Your task to perform on an android device: open sync settings in chrome Image 0: 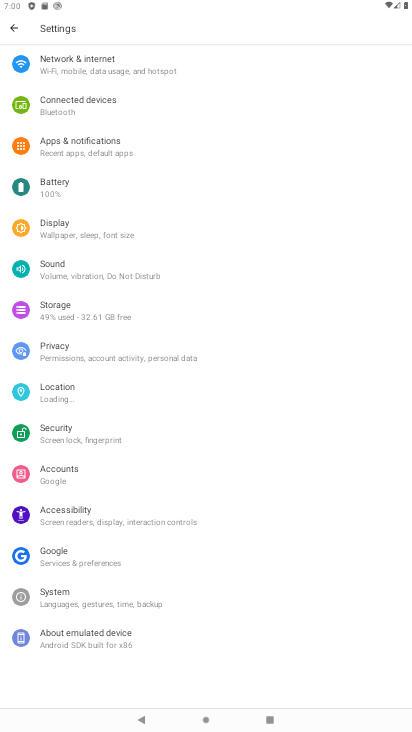
Step 0: press home button
Your task to perform on an android device: open sync settings in chrome Image 1: 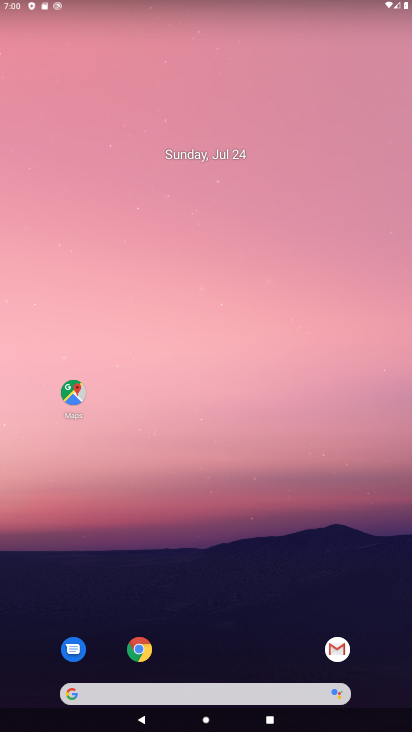
Step 1: click (152, 654)
Your task to perform on an android device: open sync settings in chrome Image 2: 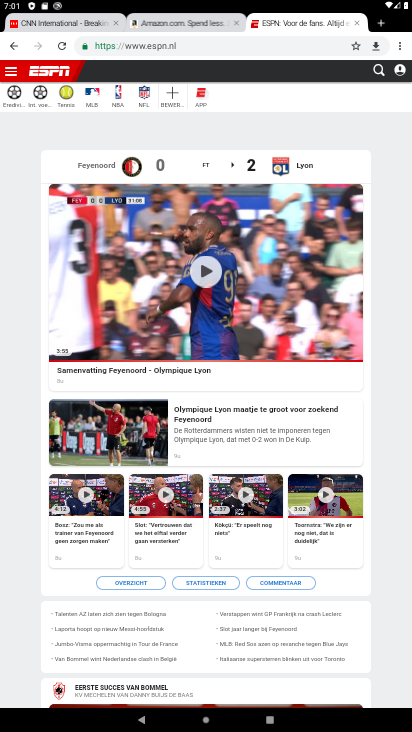
Step 2: click (400, 45)
Your task to perform on an android device: open sync settings in chrome Image 3: 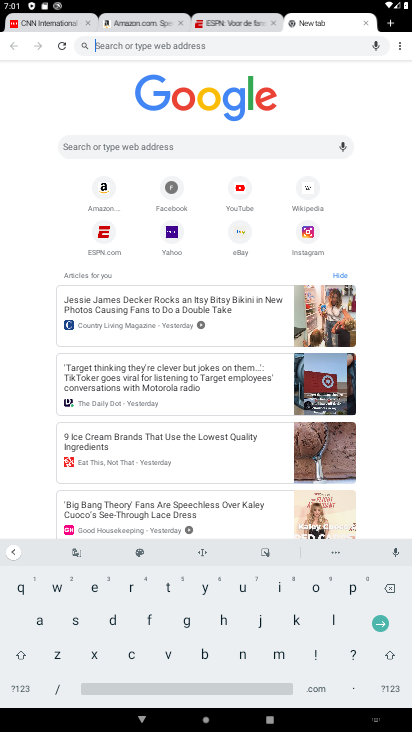
Step 3: click (393, 52)
Your task to perform on an android device: open sync settings in chrome Image 4: 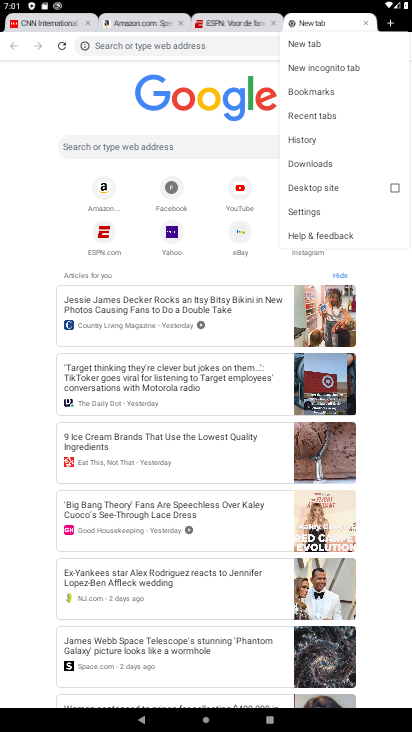
Step 4: click (319, 211)
Your task to perform on an android device: open sync settings in chrome Image 5: 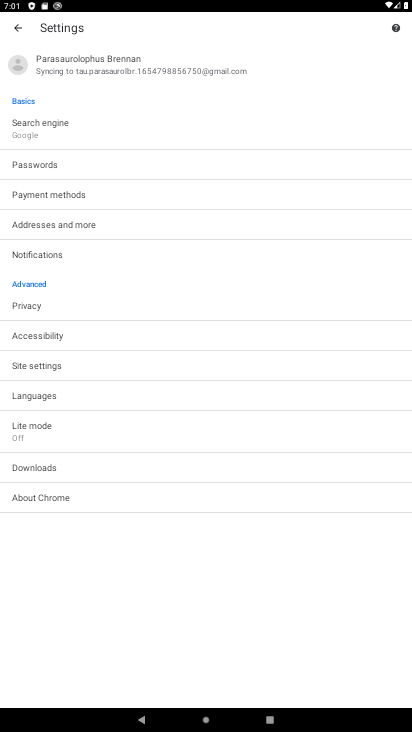
Step 5: click (76, 364)
Your task to perform on an android device: open sync settings in chrome Image 6: 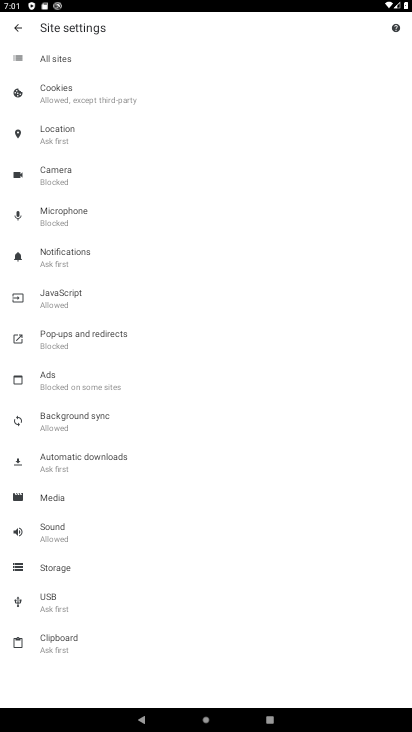
Step 6: click (108, 416)
Your task to perform on an android device: open sync settings in chrome Image 7: 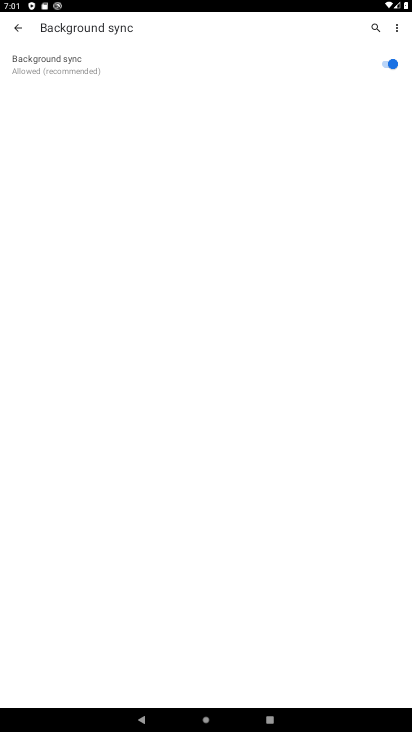
Step 7: task complete